Your task to perform on an android device: Open notification settings Image 0: 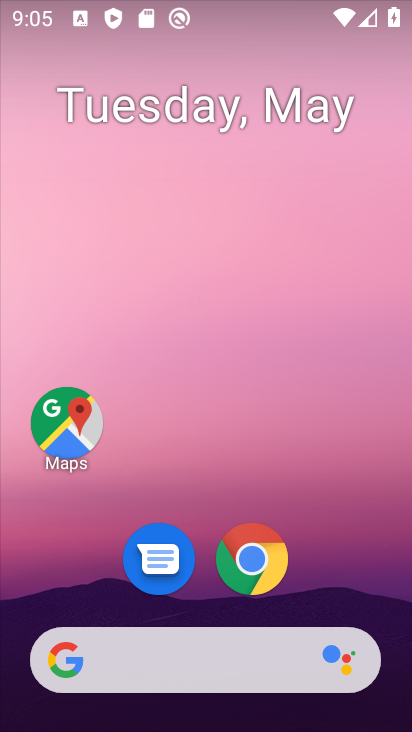
Step 0: drag from (219, 672) to (188, 0)
Your task to perform on an android device: Open notification settings Image 1: 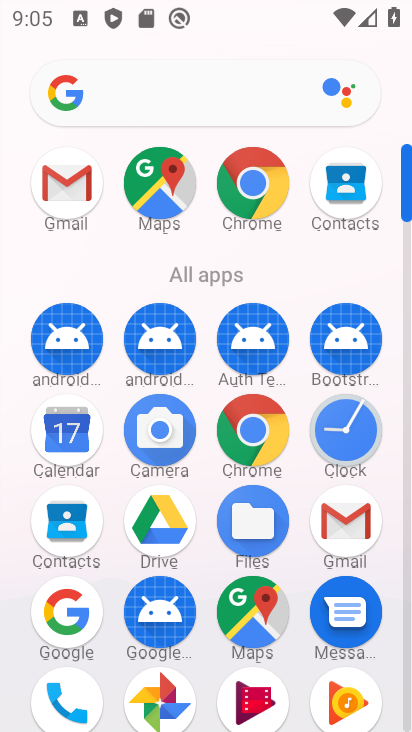
Step 1: drag from (316, 654) to (293, 206)
Your task to perform on an android device: Open notification settings Image 2: 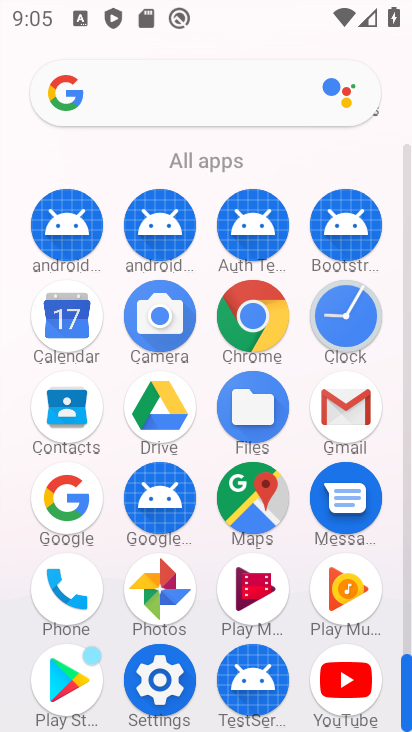
Step 2: click (166, 707)
Your task to perform on an android device: Open notification settings Image 3: 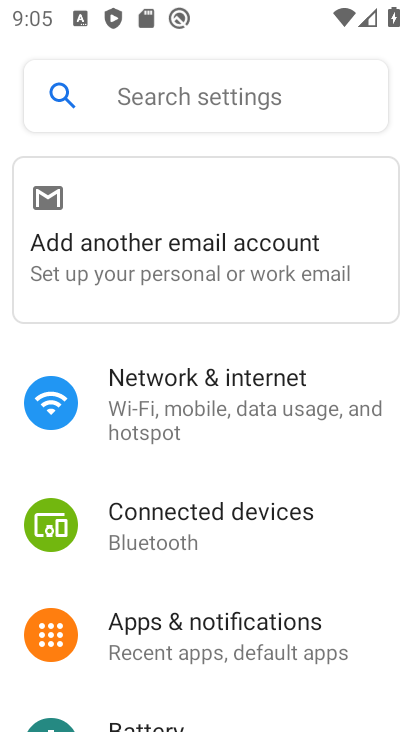
Step 3: click (230, 635)
Your task to perform on an android device: Open notification settings Image 4: 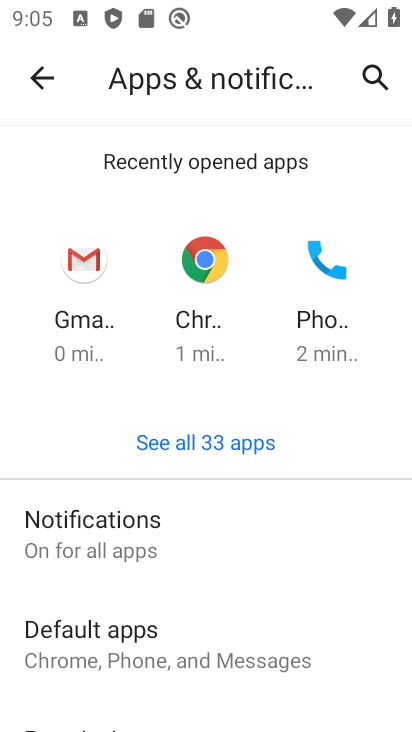
Step 4: click (145, 540)
Your task to perform on an android device: Open notification settings Image 5: 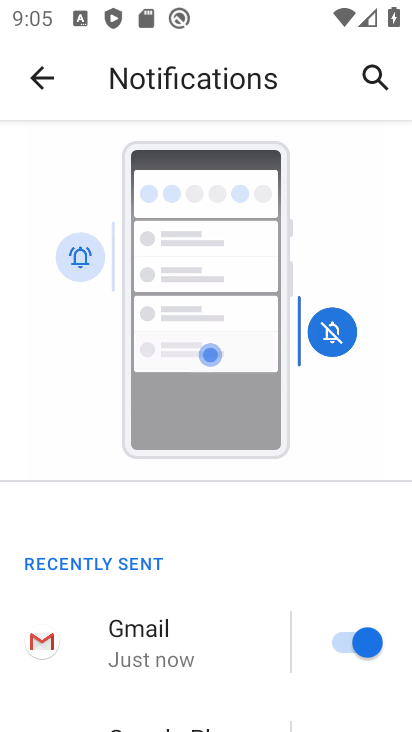
Step 5: task complete